Your task to perform on an android device: snooze an email in the gmail app Image 0: 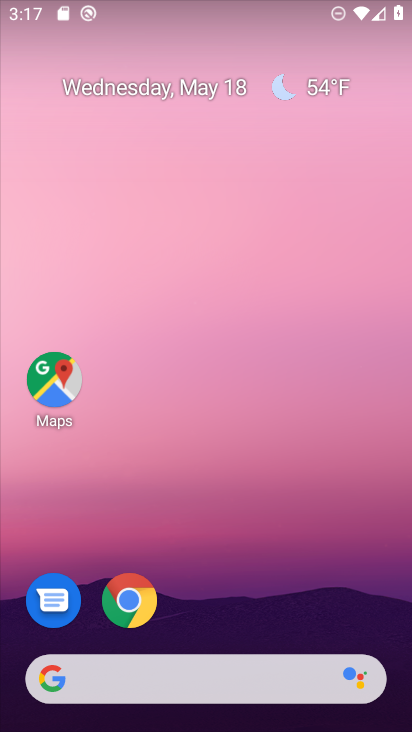
Step 0: drag from (204, 597) to (265, 123)
Your task to perform on an android device: snooze an email in the gmail app Image 1: 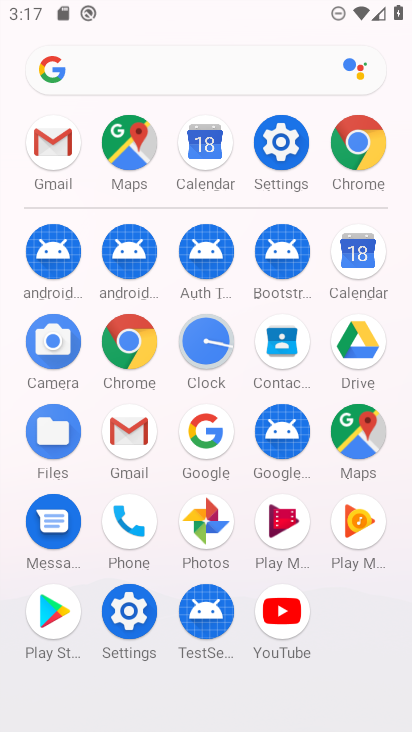
Step 1: drag from (260, 596) to (324, 49)
Your task to perform on an android device: snooze an email in the gmail app Image 2: 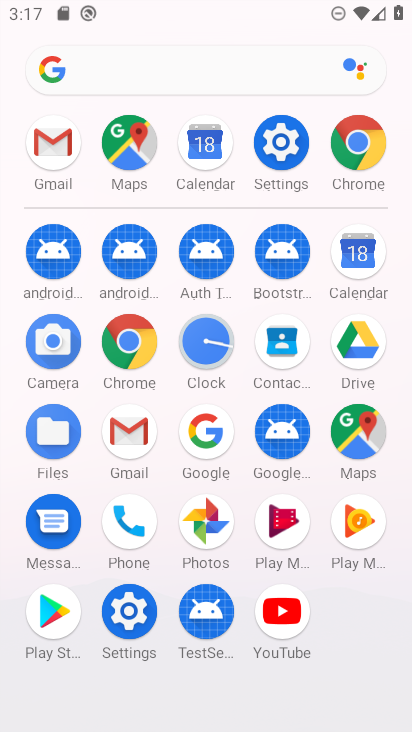
Step 2: drag from (258, 307) to (231, 60)
Your task to perform on an android device: snooze an email in the gmail app Image 3: 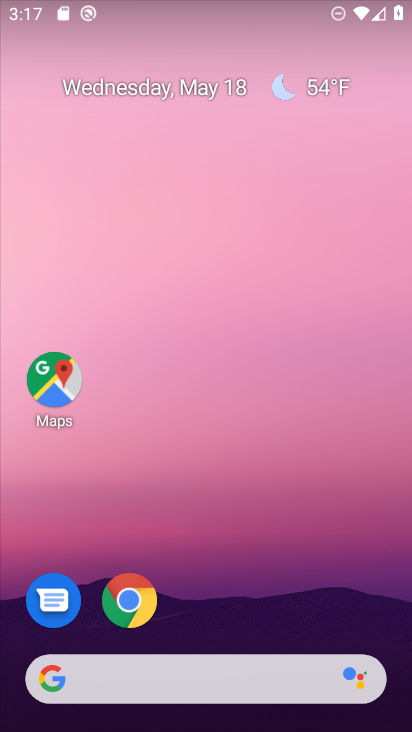
Step 3: drag from (242, 611) to (263, 22)
Your task to perform on an android device: snooze an email in the gmail app Image 4: 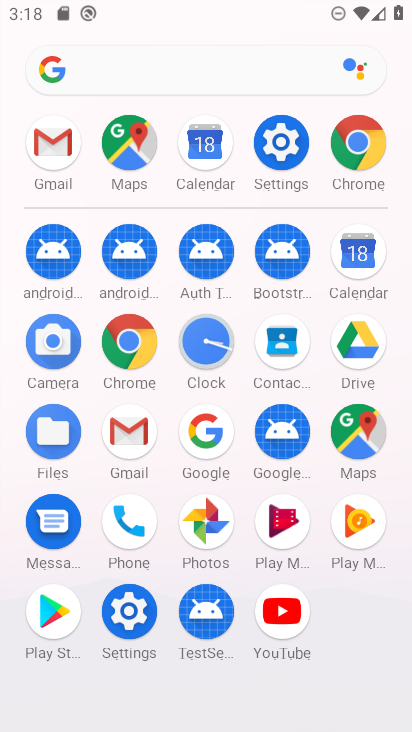
Step 4: click (128, 423)
Your task to perform on an android device: snooze an email in the gmail app Image 5: 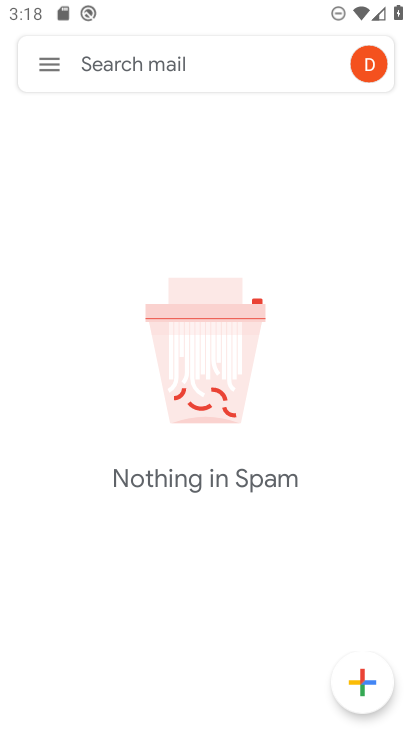
Step 5: task complete